Your task to perform on an android device: turn on translation in the chrome app Image 0: 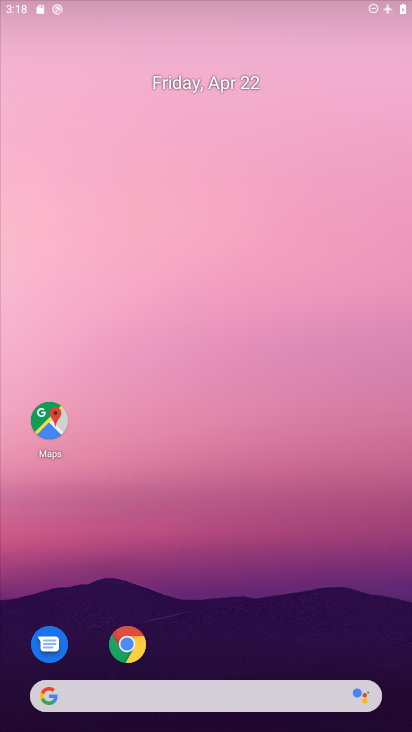
Step 0: drag from (295, 616) to (270, 58)
Your task to perform on an android device: turn on translation in the chrome app Image 1: 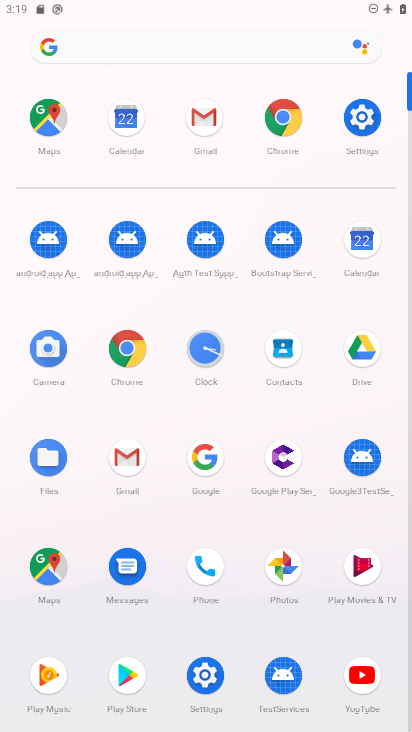
Step 1: click (281, 114)
Your task to perform on an android device: turn on translation in the chrome app Image 2: 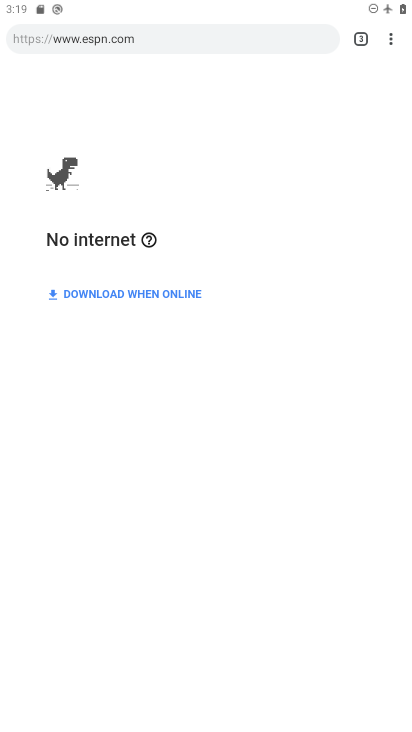
Step 2: click (388, 33)
Your task to perform on an android device: turn on translation in the chrome app Image 3: 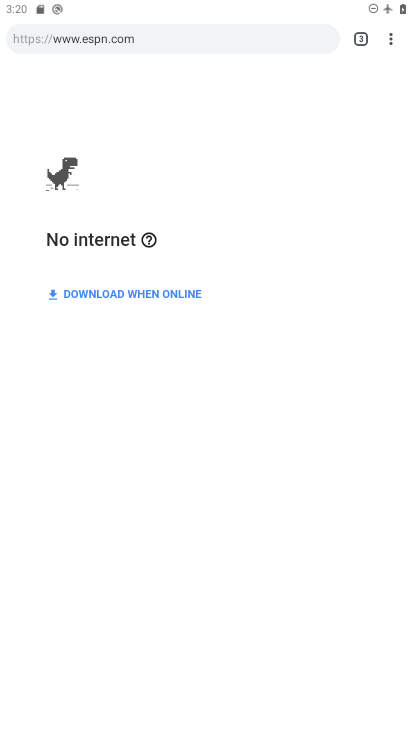
Step 3: drag from (388, 33) to (263, 489)
Your task to perform on an android device: turn on translation in the chrome app Image 4: 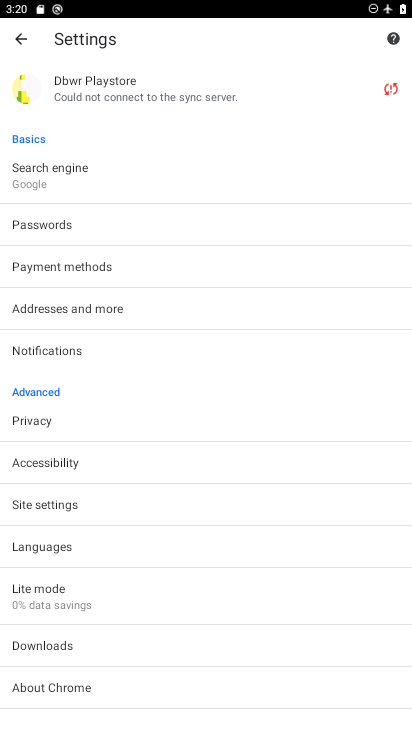
Step 4: click (82, 543)
Your task to perform on an android device: turn on translation in the chrome app Image 5: 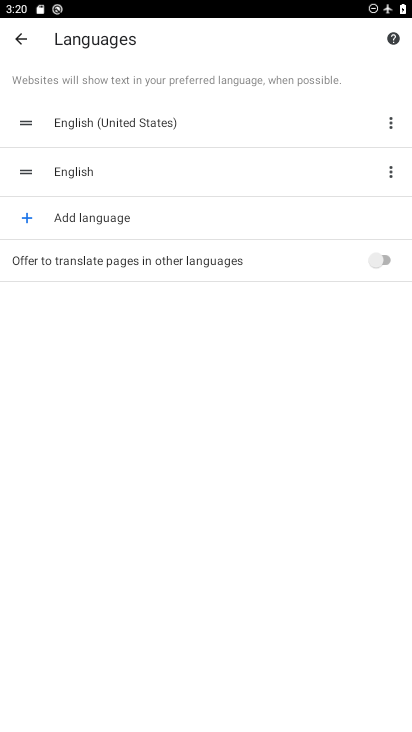
Step 5: click (370, 263)
Your task to perform on an android device: turn on translation in the chrome app Image 6: 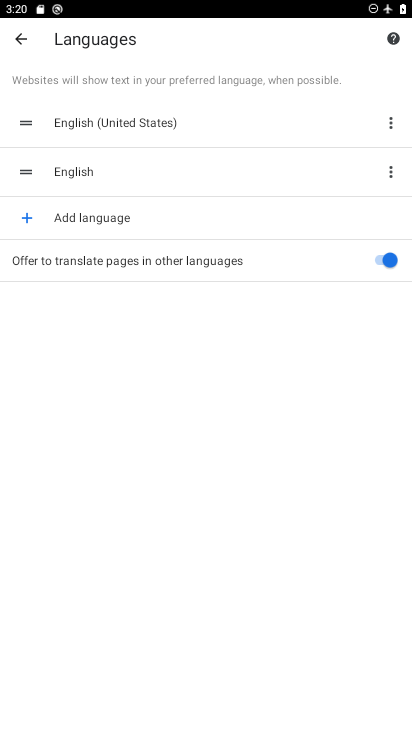
Step 6: task complete